Your task to perform on an android device: check battery use Image 0: 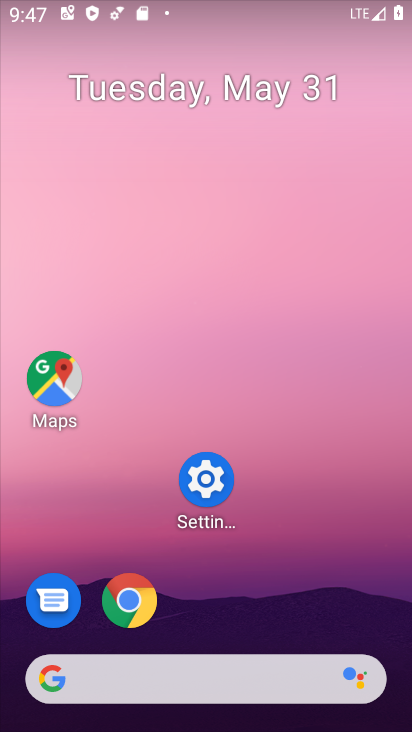
Step 0: drag from (262, 700) to (243, 344)
Your task to perform on an android device: check battery use Image 1: 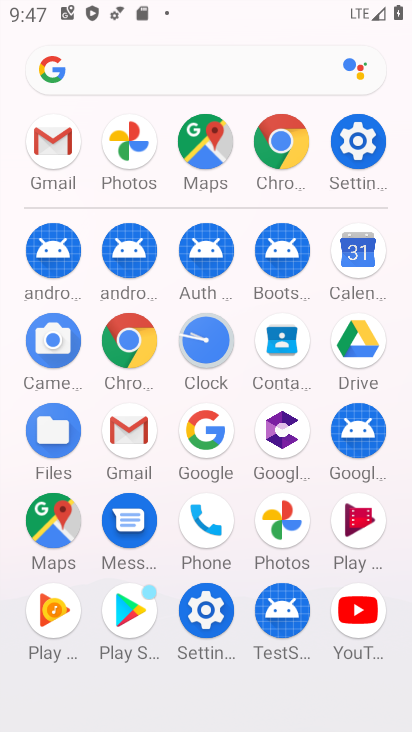
Step 1: click (353, 152)
Your task to perform on an android device: check battery use Image 2: 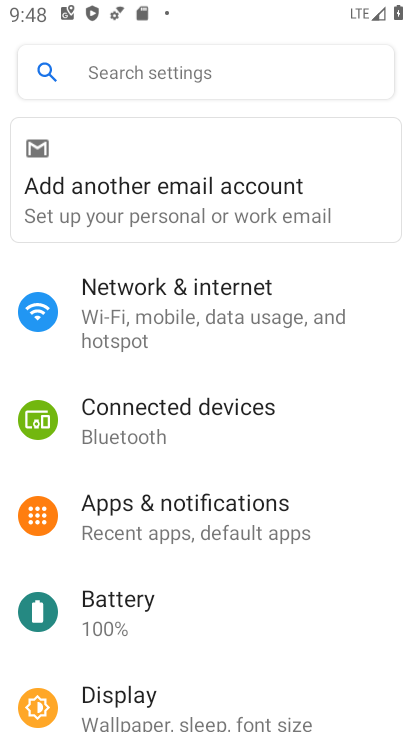
Step 2: click (143, 613)
Your task to perform on an android device: check battery use Image 3: 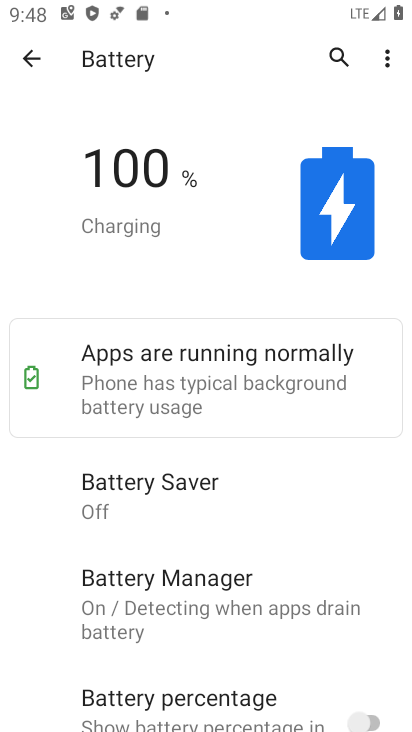
Step 3: task complete